Your task to perform on an android device: add a contact Image 0: 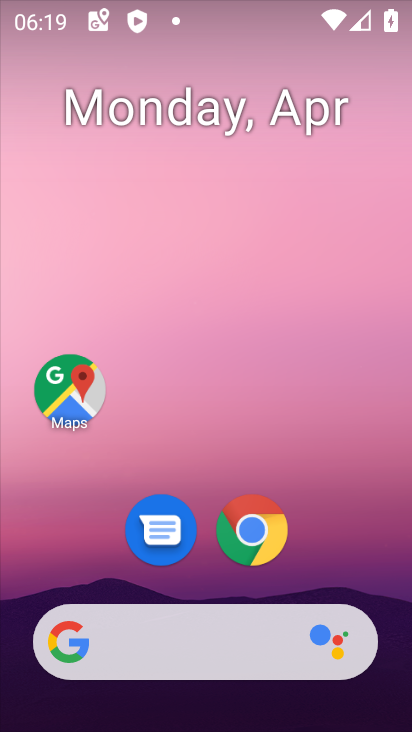
Step 0: drag from (204, 568) to (248, 71)
Your task to perform on an android device: add a contact Image 1: 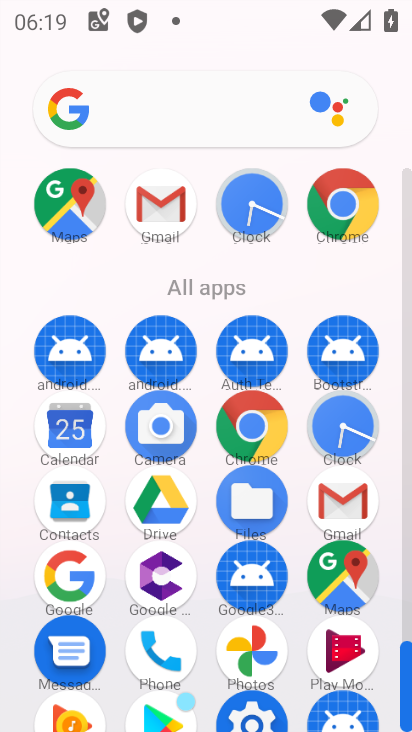
Step 1: click (67, 496)
Your task to perform on an android device: add a contact Image 2: 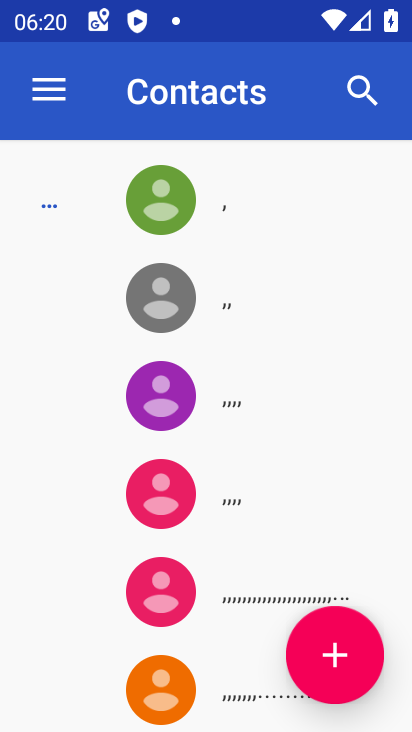
Step 2: click (330, 658)
Your task to perform on an android device: add a contact Image 3: 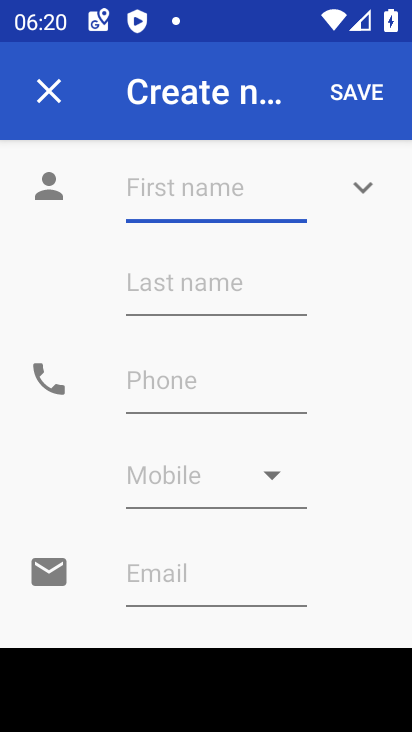
Step 3: type "tdgfc"
Your task to perform on an android device: add a contact Image 4: 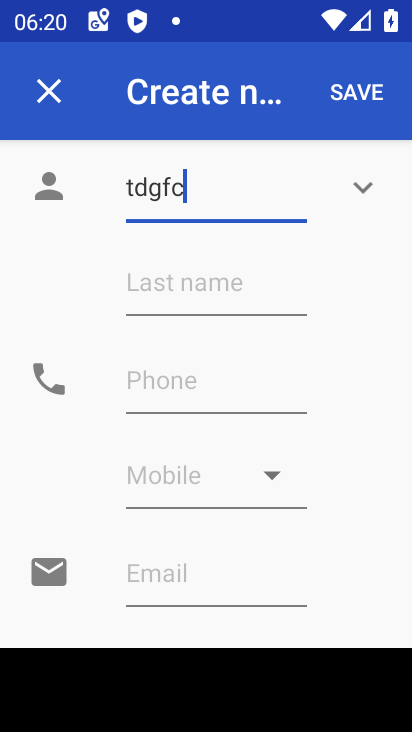
Step 4: click (360, 99)
Your task to perform on an android device: add a contact Image 5: 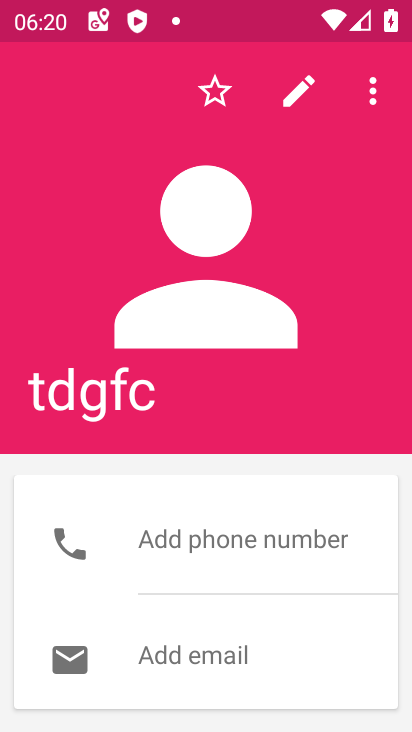
Step 5: task complete